Your task to perform on an android device: set default search engine in the chrome app Image 0: 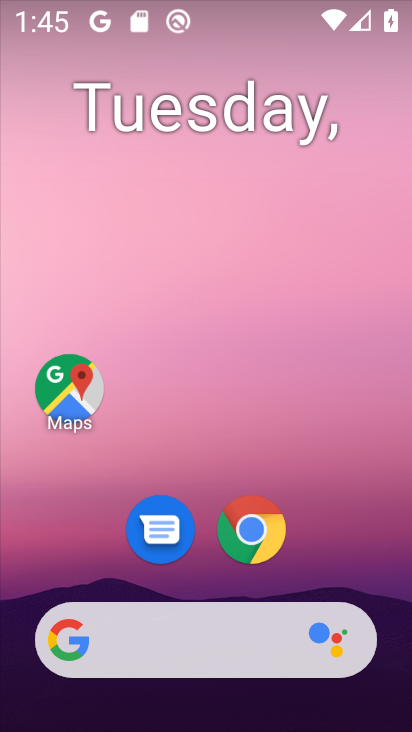
Step 0: click (251, 544)
Your task to perform on an android device: set default search engine in the chrome app Image 1: 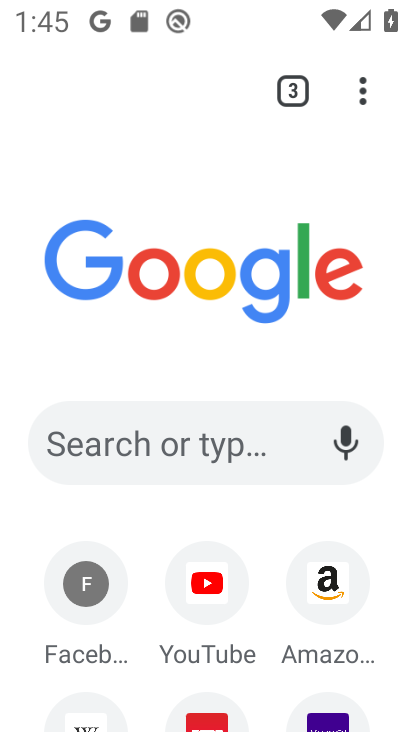
Step 1: click (361, 89)
Your task to perform on an android device: set default search engine in the chrome app Image 2: 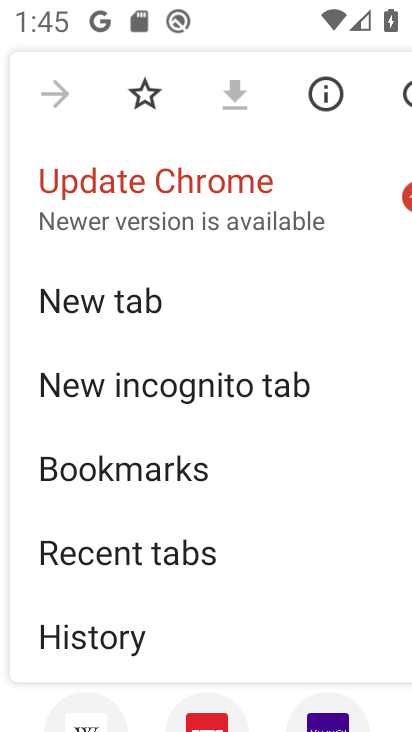
Step 2: drag from (302, 529) to (286, 297)
Your task to perform on an android device: set default search engine in the chrome app Image 3: 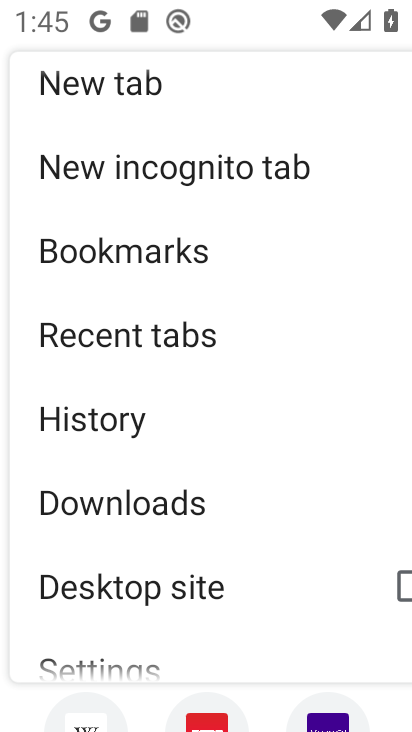
Step 3: drag from (304, 506) to (309, 238)
Your task to perform on an android device: set default search engine in the chrome app Image 4: 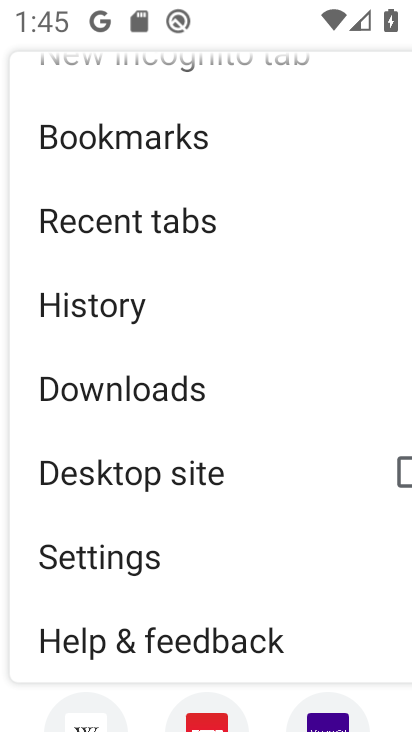
Step 4: drag from (311, 379) to (304, 284)
Your task to perform on an android device: set default search engine in the chrome app Image 5: 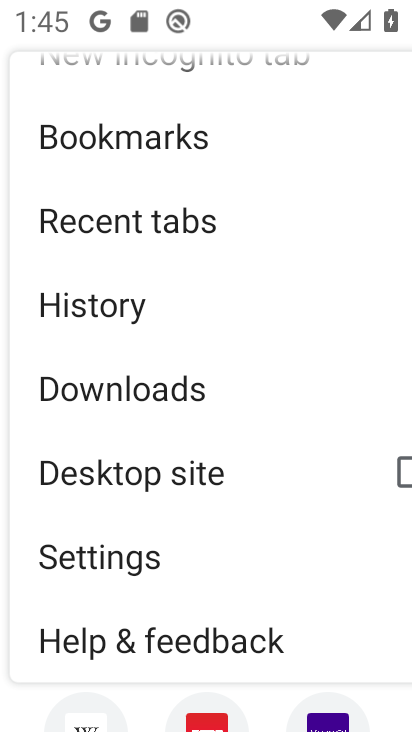
Step 5: drag from (280, 475) to (284, 185)
Your task to perform on an android device: set default search engine in the chrome app Image 6: 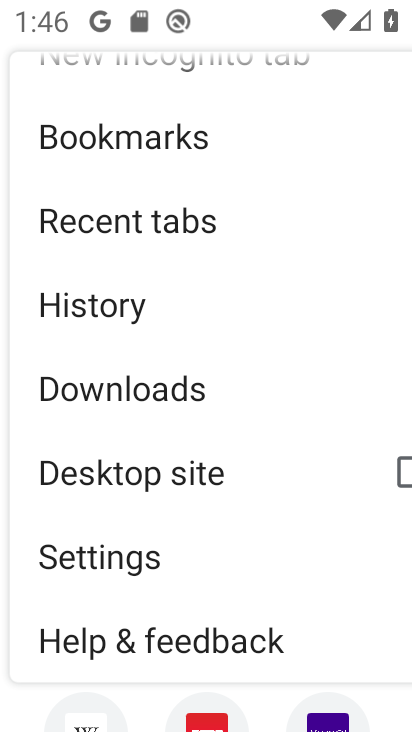
Step 6: click (113, 551)
Your task to perform on an android device: set default search engine in the chrome app Image 7: 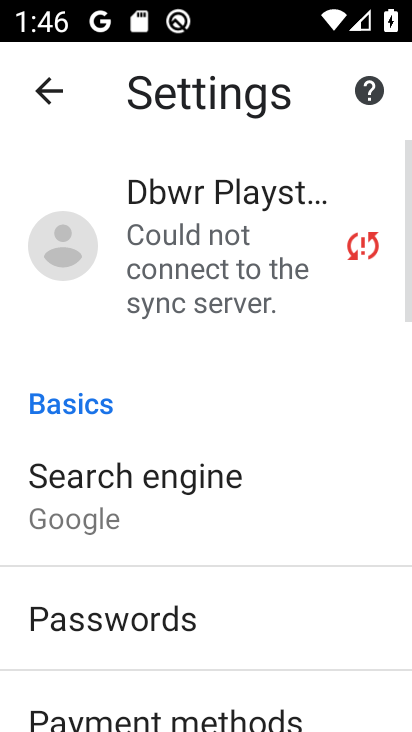
Step 7: click (124, 481)
Your task to perform on an android device: set default search engine in the chrome app Image 8: 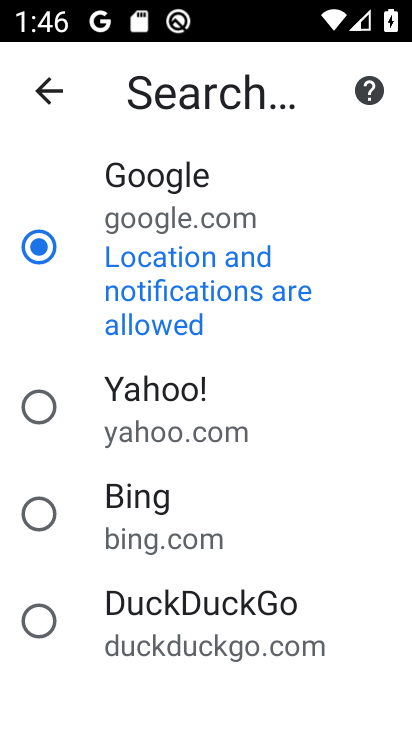
Step 8: task complete